Your task to perform on an android device: turn off location history Image 0: 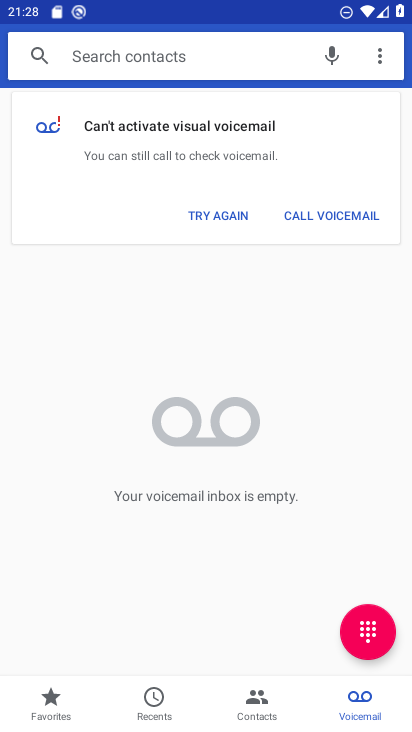
Step 0: press home button
Your task to perform on an android device: turn off location history Image 1: 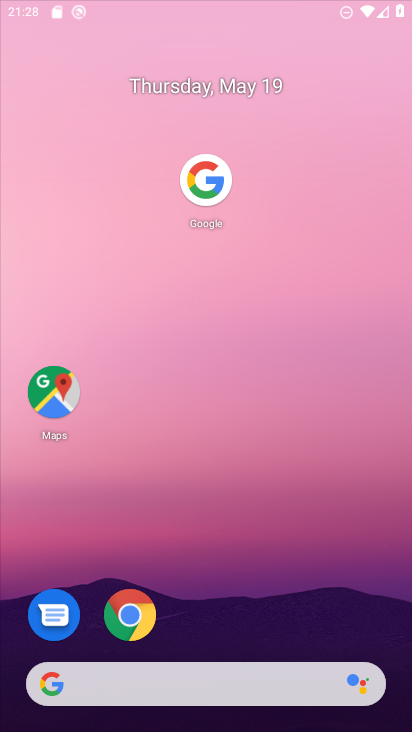
Step 1: drag from (220, 531) to (231, 1)
Your task to perform on an android device: turn off location history Image 2: 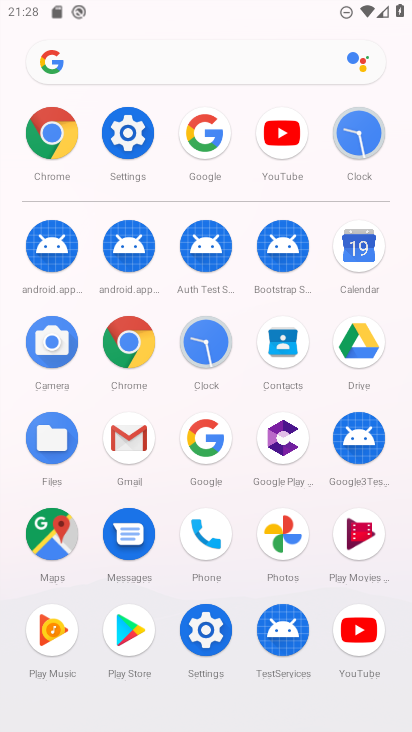
Step 2: click (214, 616)
Your task to perform on an android device: turn off location history Image 3: 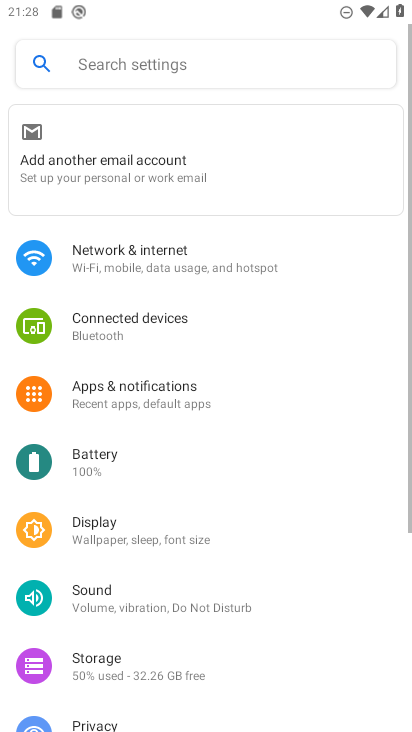
Step 3: drag from (216, 583) to (251, 240)
Your task to perform on an android device: turn off location history Image 4: 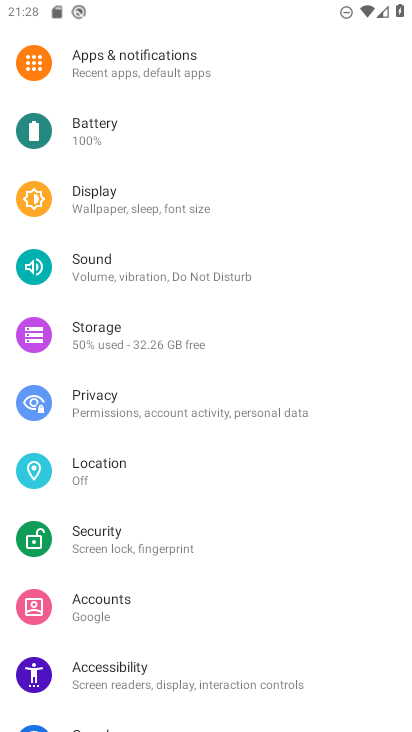
Step 4: click (109, 473)
Your task to perform on an android device: turn off location history Image 5: 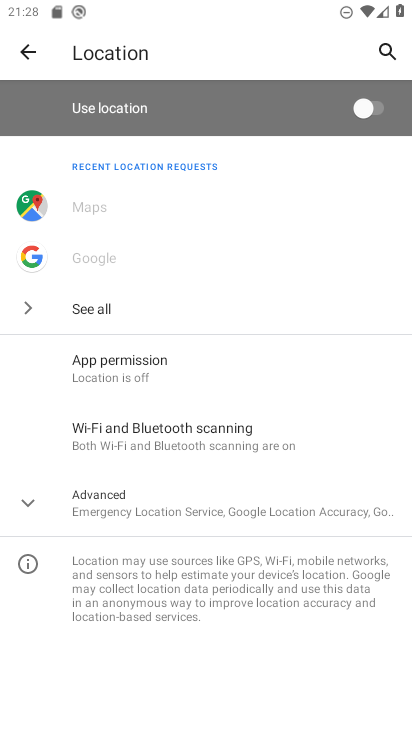
Step 5: click (119, 517)
Your task to perform on an android device: turn off location history Image 6: 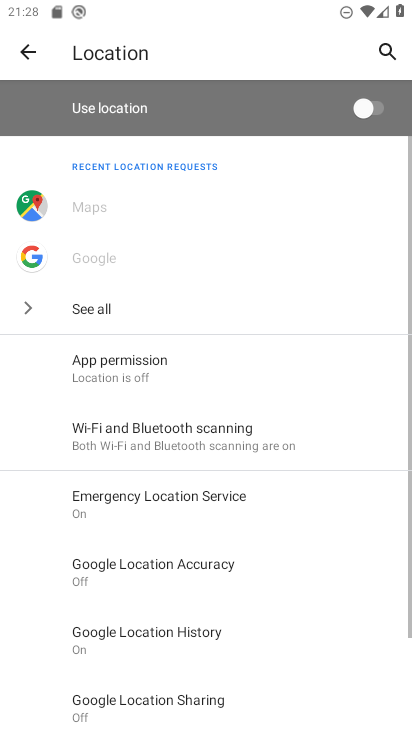
Step 6: drag from (207, 555) to (207, 352)
Your task to perform on an android device: turn off location history Image 7: 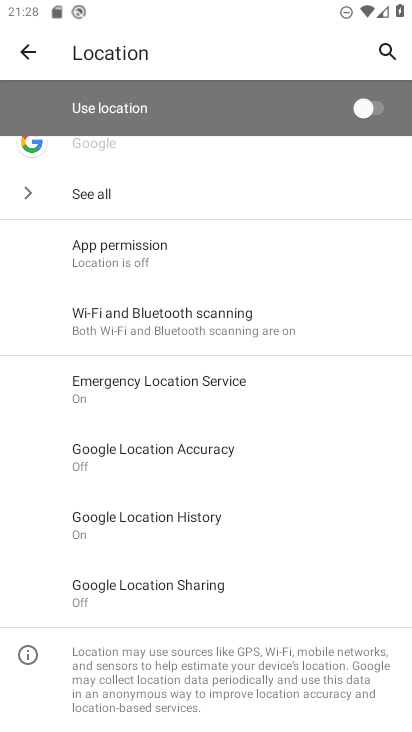
Step 7: click (131, 530)
Your task to perform on an android device: turn off location history Image 8: 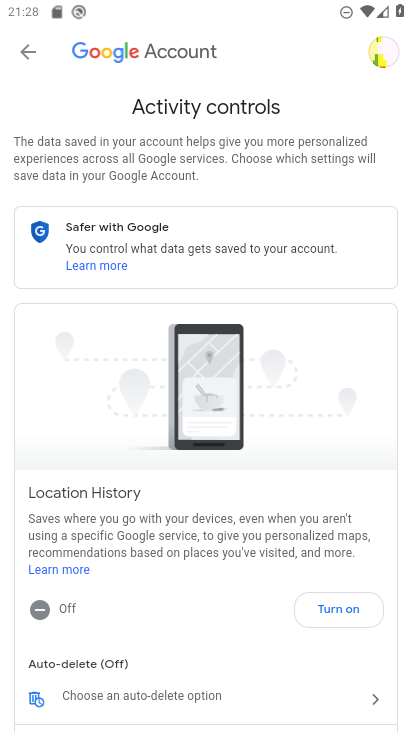
Step 8: task complete